Your task to perform on an android device: delete a single message in the gmail app Image 0: 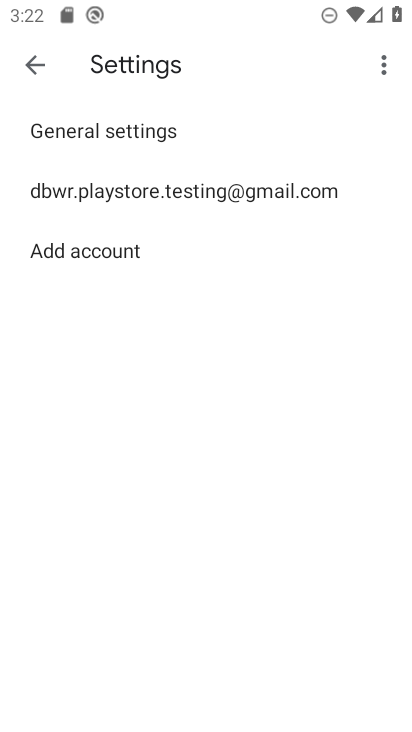
Step 0: press home button
Your task to perform on an android device: delete a single message in the gmail app Image 1: 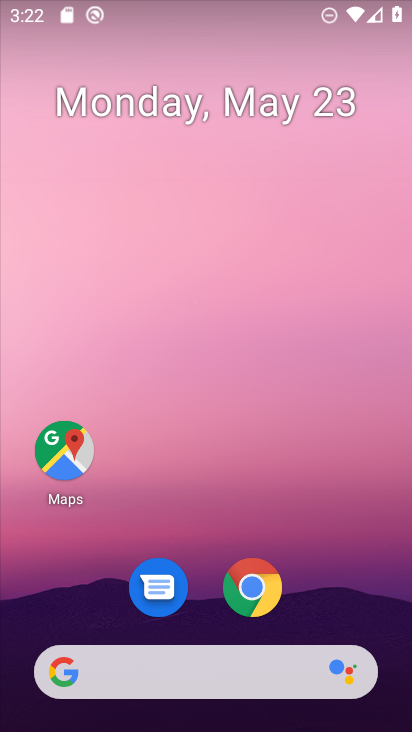
Step 1: drag from (177, 309) to (144, 7)
Your task to perform on an android device: delete a single message in the gmail app Image 2: 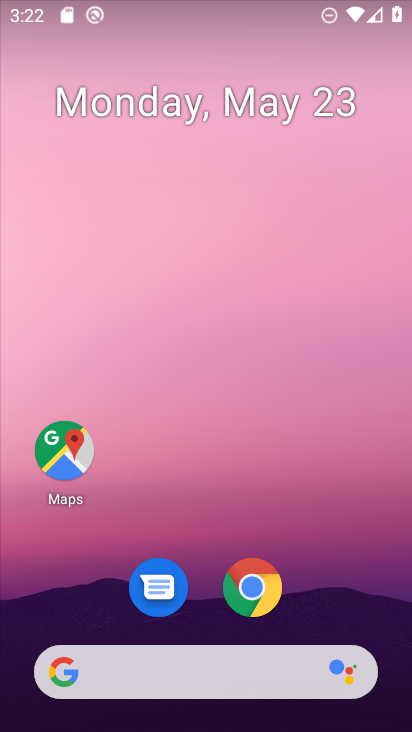
Step 2: drag from (194, 628) to (167, 8)
Your task to perform on an android device: delete a single message in the gmail app Image 3: 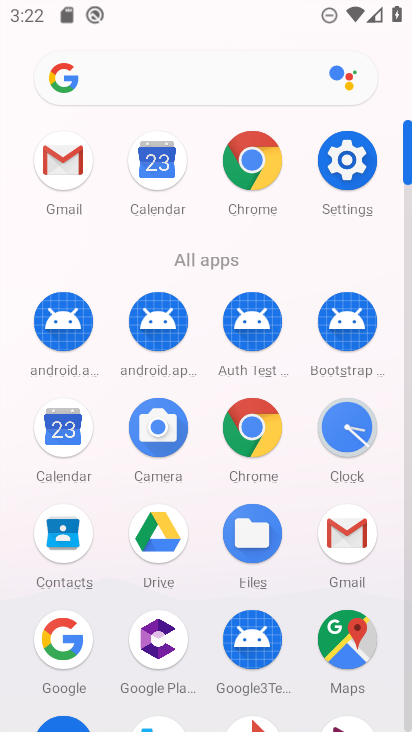
Step 3: click (341, 544)
Your task to perform on an android device: delete a single message in the gmail app Image 4: 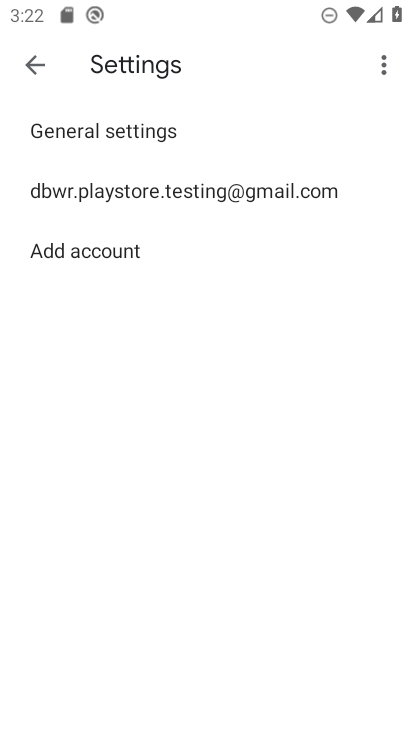
Step 4: click (37, 67)
Your task to perform on an android device: delete a single message in the gmail app Image 5: 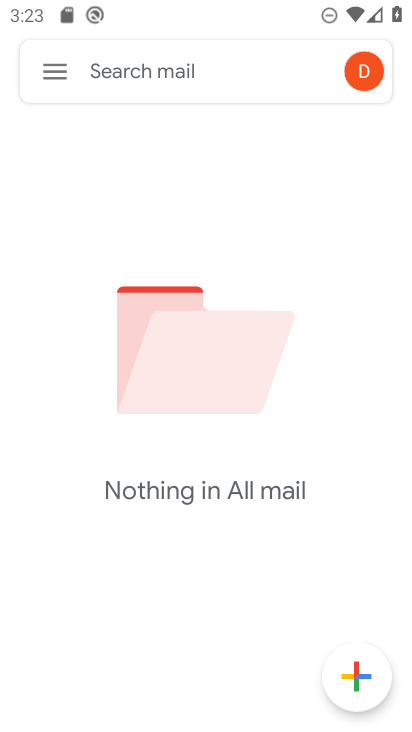
Step 5: click (50, 67)
Your task to perform on an android device: delete a single message in the gmail app Image 6: 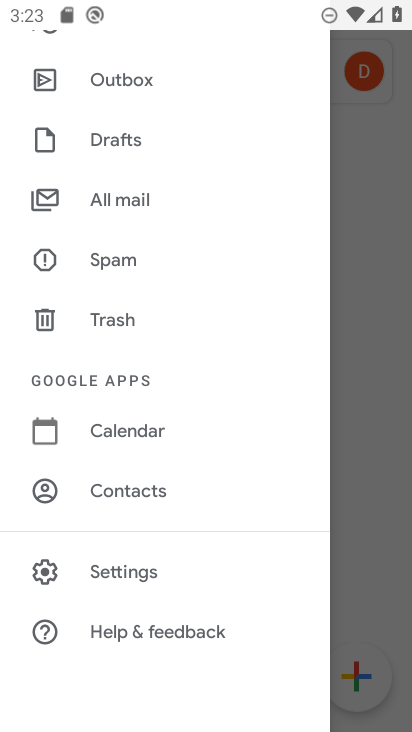
Step 6: click (137, 576)
Your task to perform on an android device: delete a single message in the gmail app Image 7: 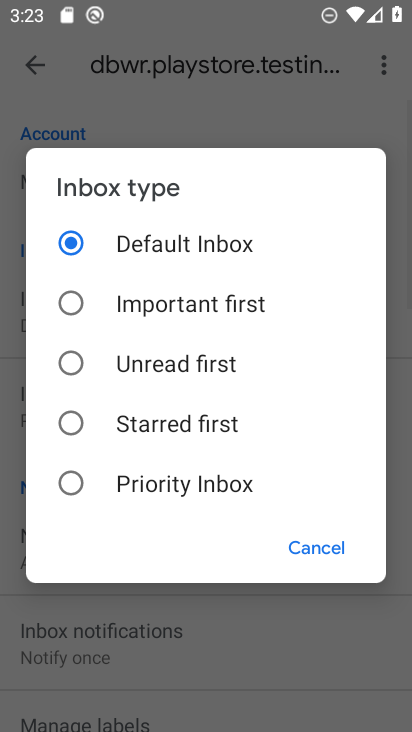
Step 7: click (308, 539)
Your task to perform on an android device: delete a single message in the gmail app Image 8: 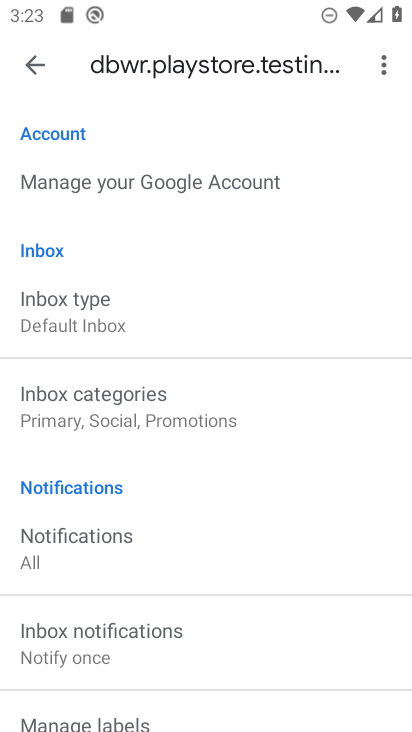
Step 8: click (25, 66)
Your task to perform on an android device: delete a single message in the gmail app Image 9: 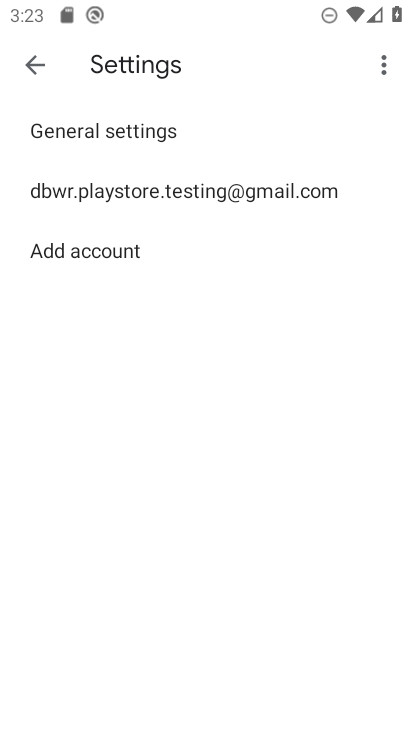
Step 9: click (43, 51)
Your task to perform on an android device: delete a single message in the gmail app Image 10: 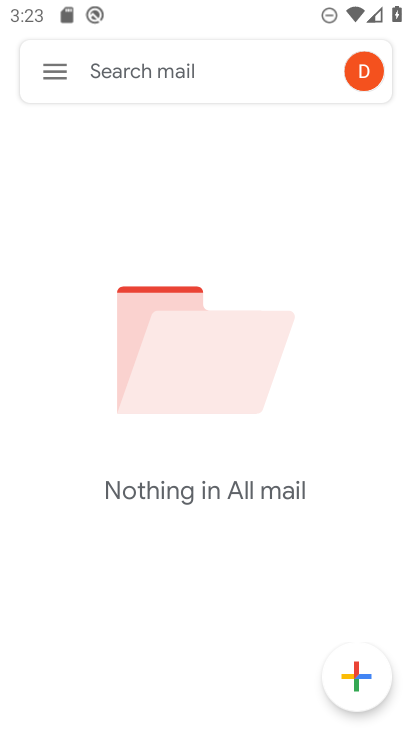
Step 10: task complete